Your task to perform on an android device: Open accessibility settings Image 0: 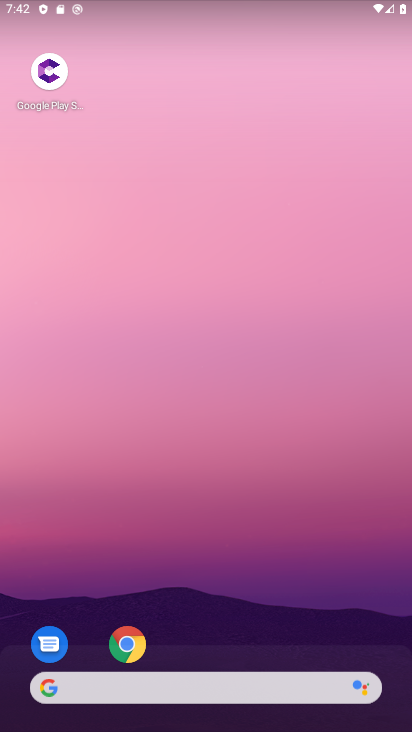
Step 0: drag from (271, 618) to (347, 139)
Your task to perform on an android device: Open accessibility settings Image 1: 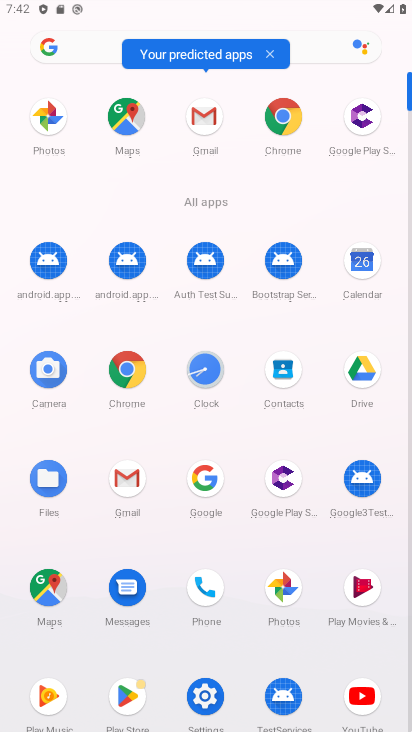
Step 1: click (201, 680)
Your task to perform on an android device: Open accessibility settings Image 2: 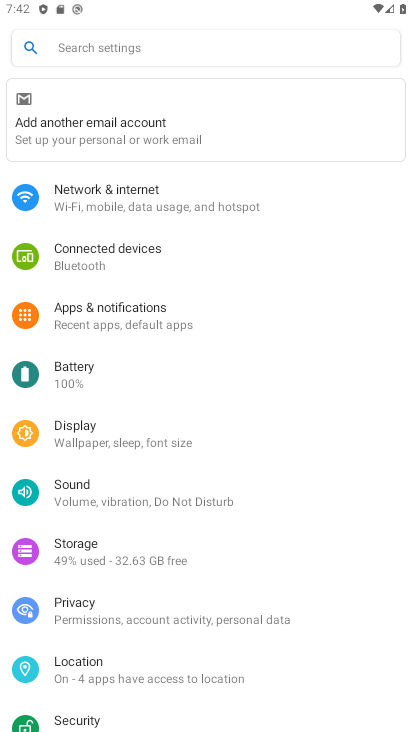
Step 2: drag from (142, 546) to (151, 259)
Your task to perform on an android device: Open accessibility settings Image 3: 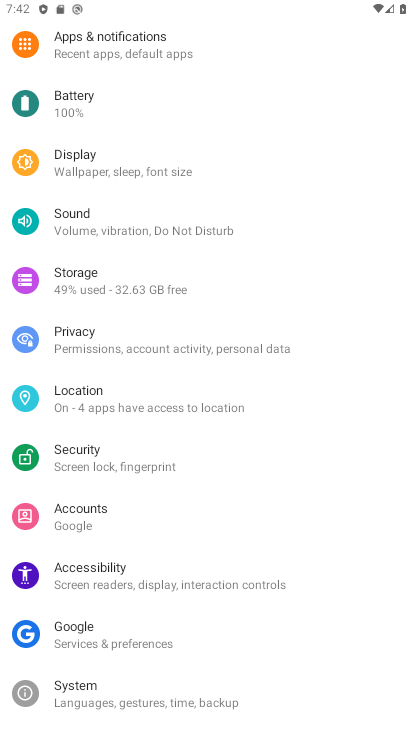
Step 3: click (96, 568)
Your task to perform on an android device: Open accessibility settings Image 4: 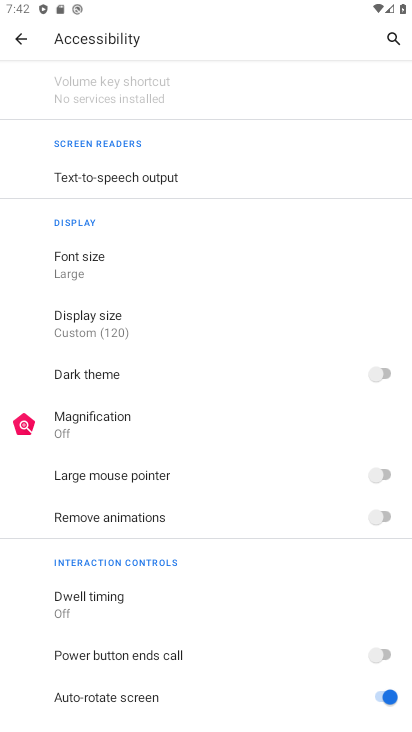
Step 4: task complete